Your task to perform on an android device: Do I have any events today? Image 0: 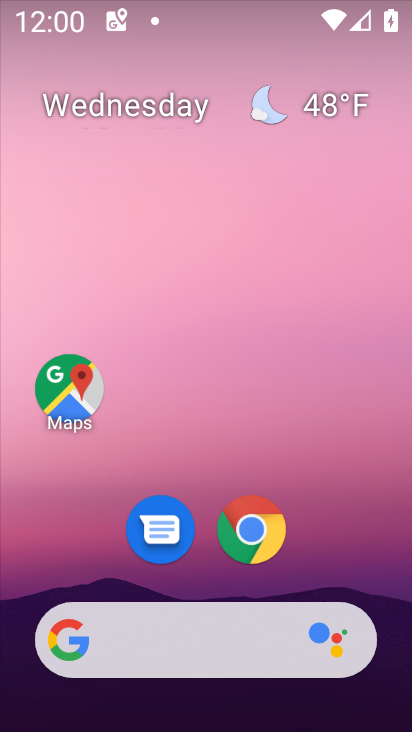
Step 0: drag from (315, 554) to (316, 174)
Your task to perform on an android device: Do I have any events today? Image 1: 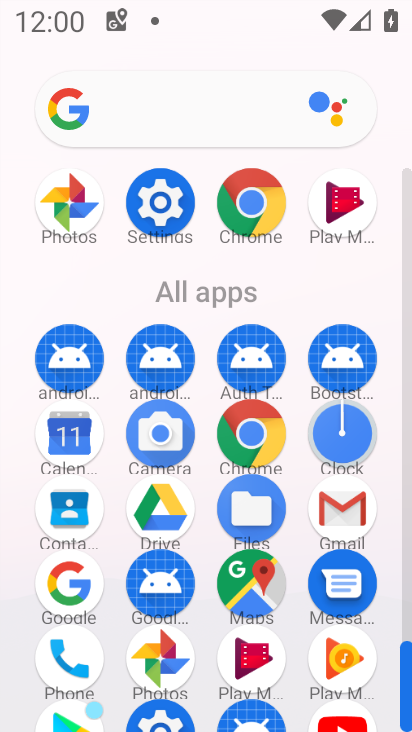
Step 1: click (54, 450)
Your task to perform on an android device: Do I have any events today? Image 2: 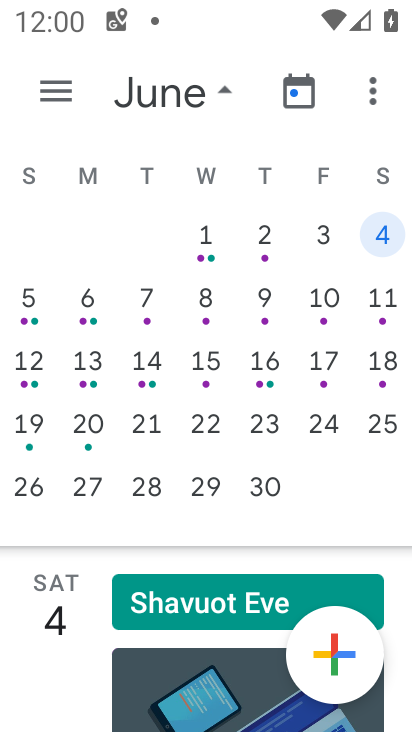
Step 2: drag from (91, 418) to (317, 386)
Your task to perform on an android device: Do I have any events today? Image 3: 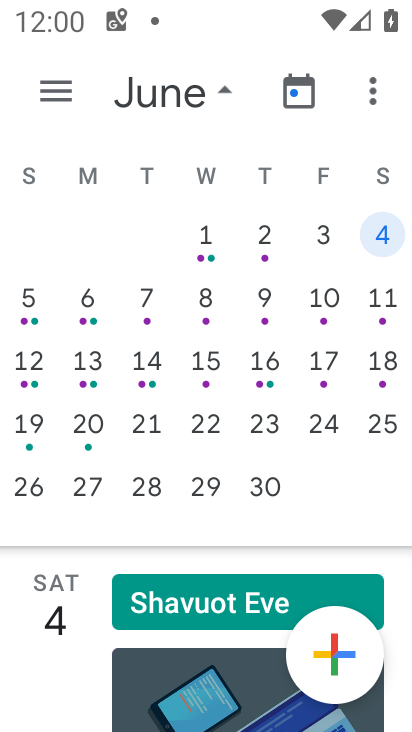
Step 3: drag from (28, 412) to (348, 383)
Your task to perform on an android device: Do I have any events today? Image 4: 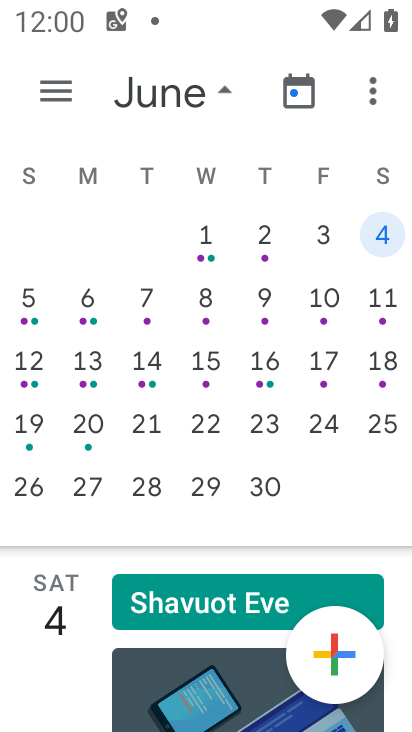
Step 4: drag from (199, 448) to (400, 438)
Your task to perform on an android device: Do I have any events today? Image 5: 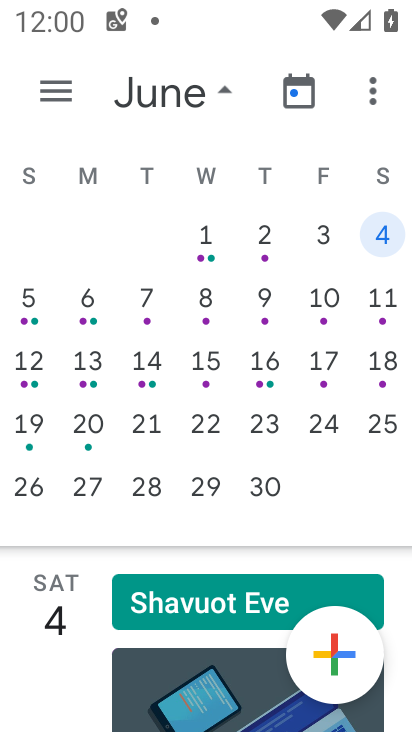
Step 5: drag from (55, 419) to (401, 463)
Your task to perform on an android device: Do I have any events today? Image 6: 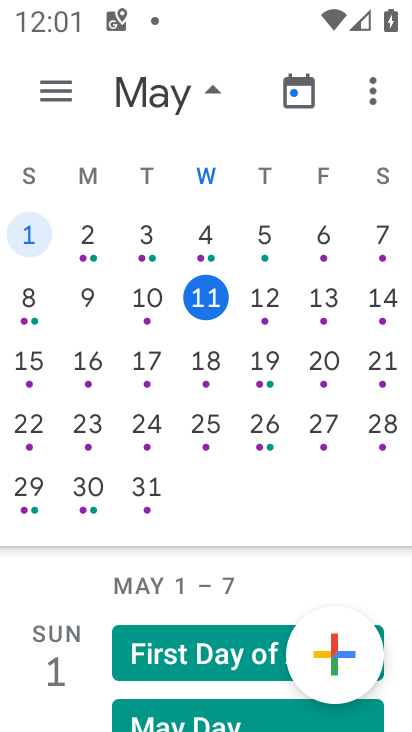
Step 6: click (207, 299)
Your task to perform on an android device: Do I have any events today? Image 7: 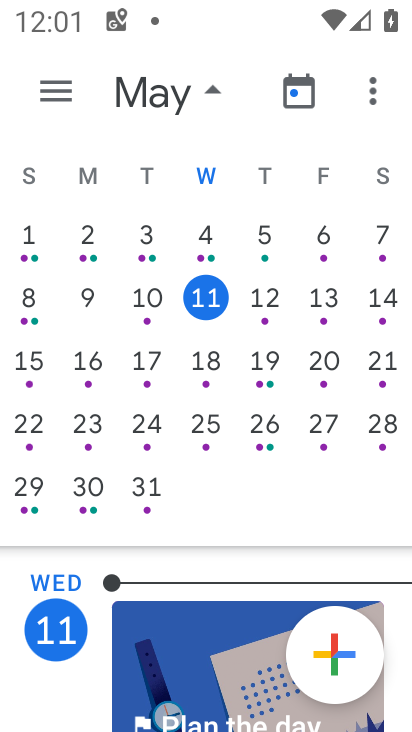
Step 7: task complete